Your task to perform on an android device: toggle pop-ups in chrome Image 0: 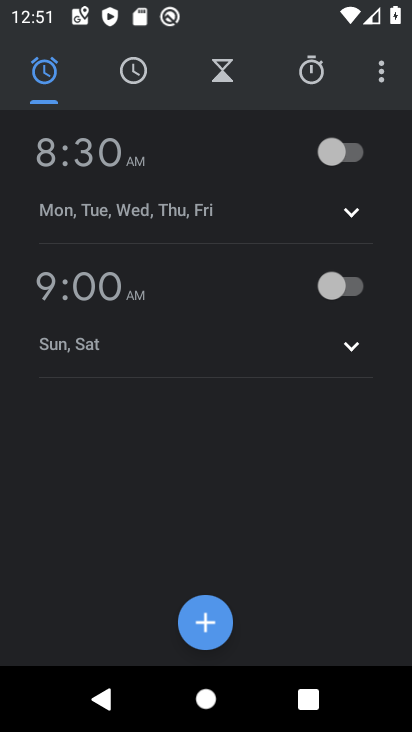
Step 0: press home button
Your task to perform on an android device: toggle pop-ups in chrome Image 1: 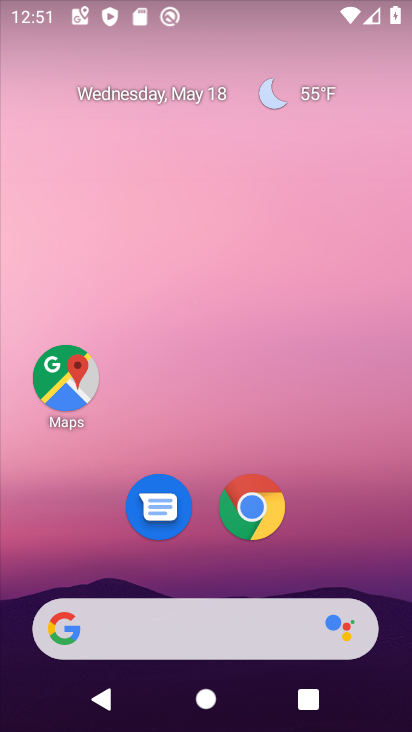
Step 1: click (253, 510)
Your task to perform on an android device: toggle pop-ups in chrome Image 2: 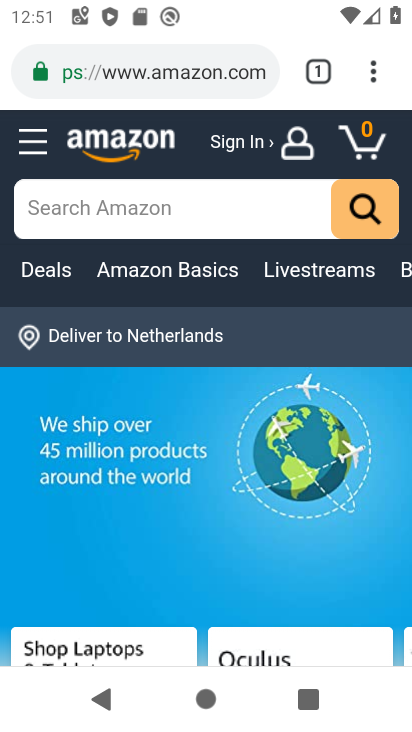
Step 2: click (375, 78)
Your task to perform on an android device: toggle pop-ups in chrome Image 3: 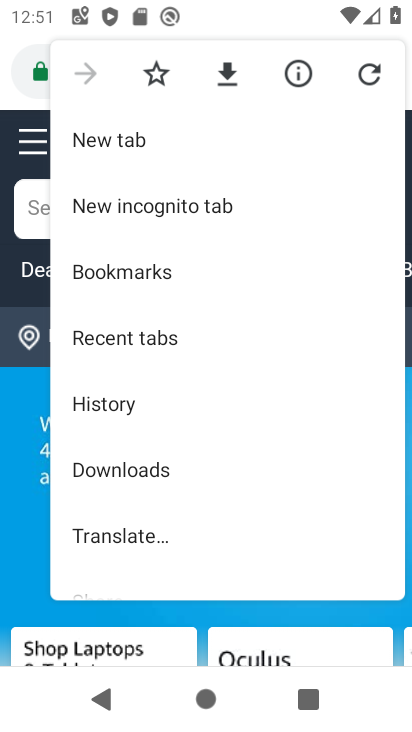
Step 3: drag from (249, 534) to (228, 219)
Your task to perform on an android device: toggle pop-ups in chrome Image 4: 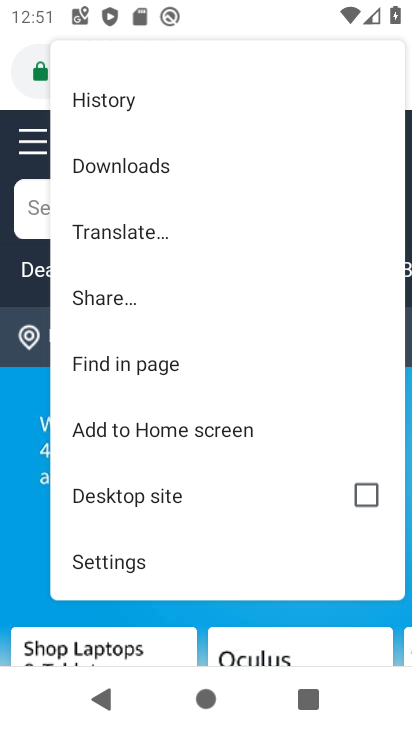
Step 4: drag from (203, 543) to (268, 226)
Your task to perform on an android device: toggle pop-ups in chrome Image 5: 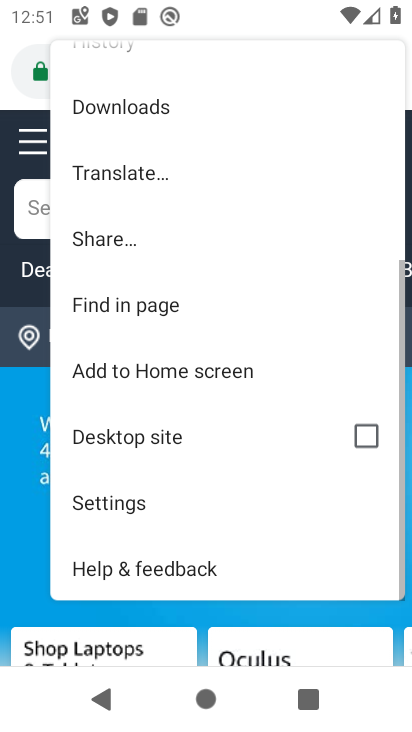
Step 5: click (128, 499)
Your task to perform on an android device: toggle pop-ups in chrome Image 6: 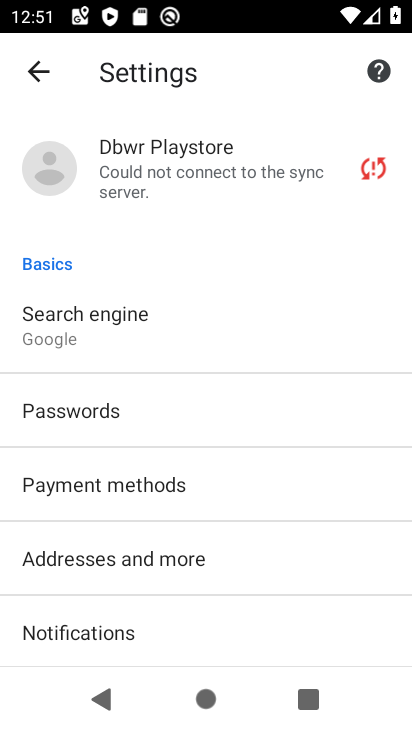
Step 6: drag from (243, 625) to (243, 273)
Your task to perform on an android device: toggle pop-ups in chrome Image 7: 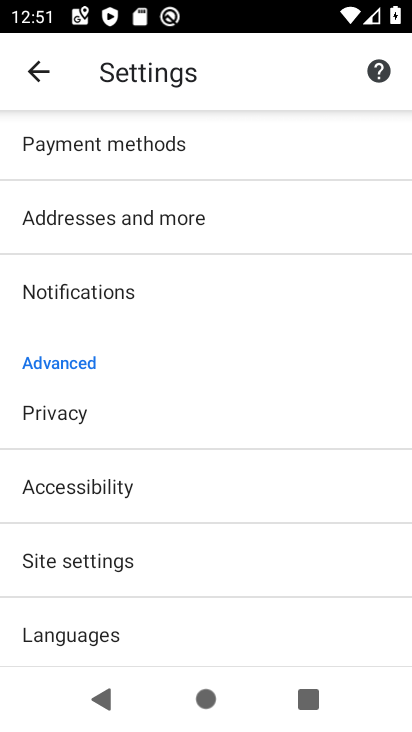
Step 7: drag from (194, 573) to (208, 346)
Your task to perform on an android device: toggle pop-ups in chrome Image 8: 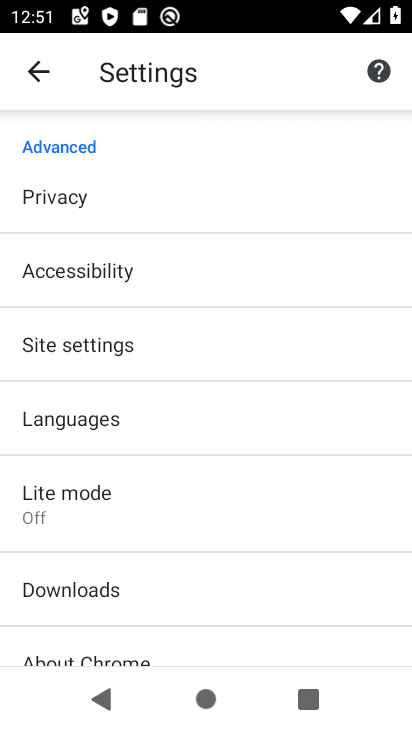
Step 8: click (83, 344)
Your task to perform on an android device: toggle pop-ups in chrome Image 9: 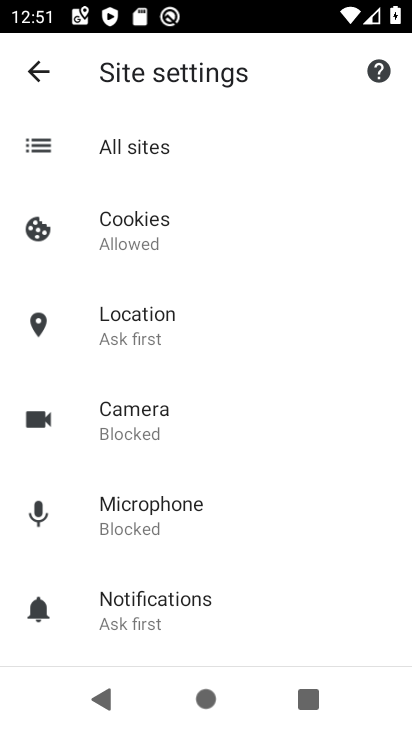
Step 9: drag from (251, 627) to (256, 234)
Your task to perform on an android device: toggle pop-ups in chrome Image 10: 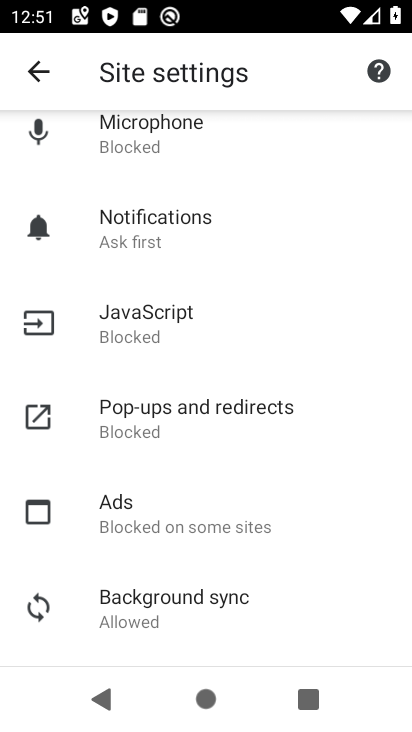
Step 10: click (140, 419)
Your task to perform on an android device: toggle pop-ups in chrome Image 11: 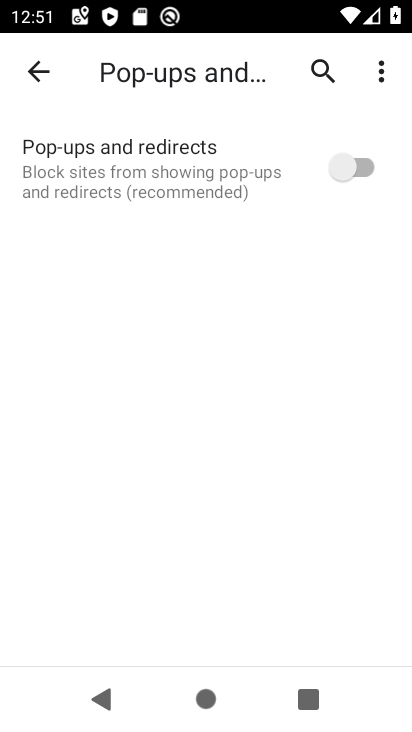
Step 11: click (362, 161)
Your task to perform on an android device: toggle pop-ups in chrome Image 12: 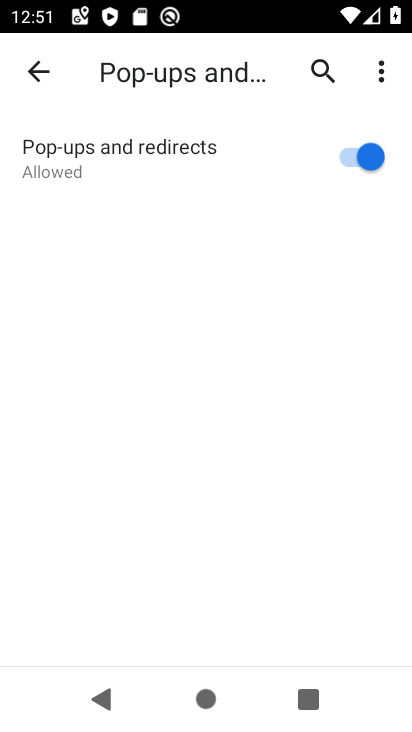
Step 12: task complete